Your task to perform on an android device: turn on bluetooth scan Image 0: 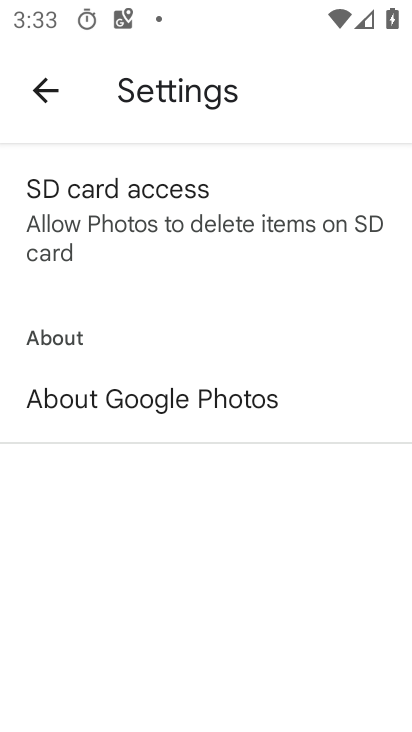
Step 0: press home button
Your task to perform on an android device: turn on bluetooth scan Image 1: 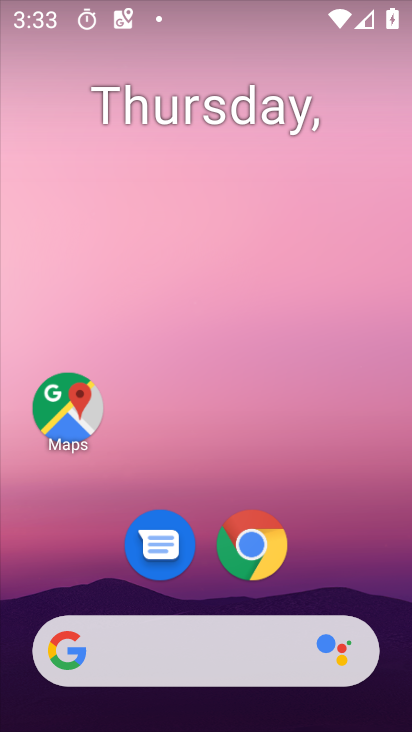
Step 1: drag from (215, 728) to (209, 108)
Your task to perform on an android device: turn on bluetooth scan Image 2: 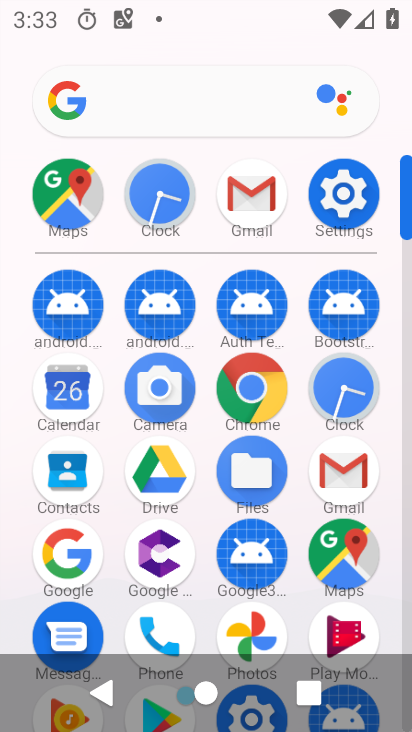
Step 2: click (344, 190)
Your task to perform on an android device: turn on bluetooth scan Image 3: 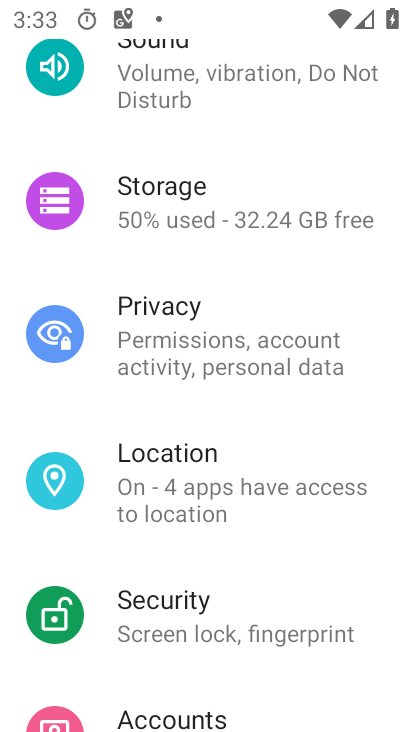
Step 3: click (184, 475)
Your task to perform on an android device: turn on bluetooth scan Image 4: 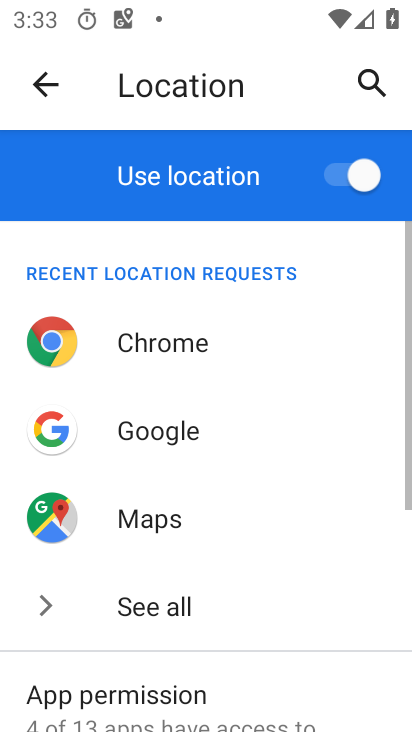
Step 4: drag from (212, 716) to (221, 253)
Your task to perform on an android device: turn on bluetooth scan Image 5: 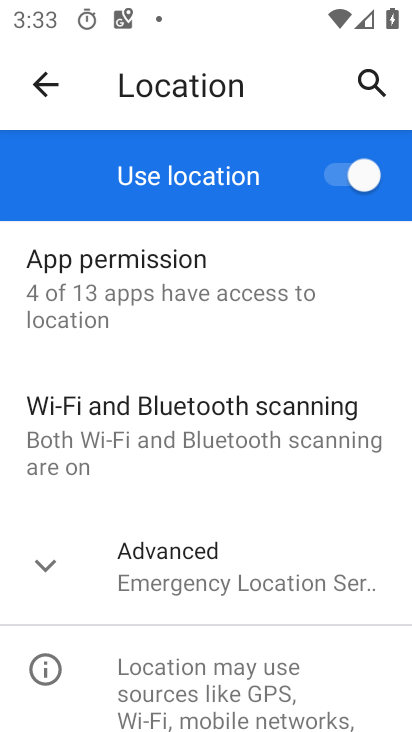
Step 5: click (200, 415)
Your task to perform on an android device: turn on bluetooth scan Image 6: 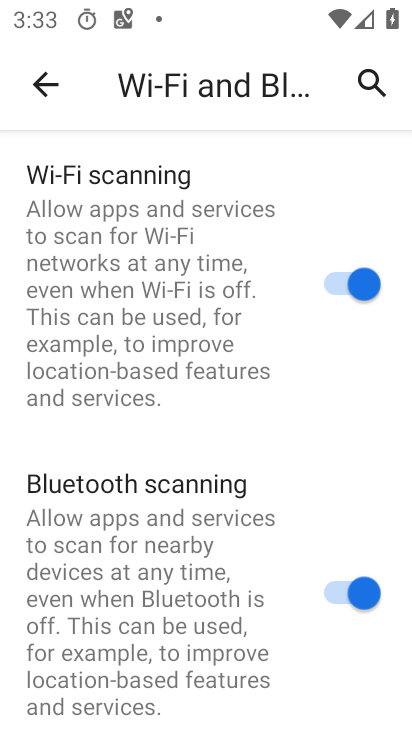
Step 6: task complete